Your task to perform on an android device: Open the map Image 0: 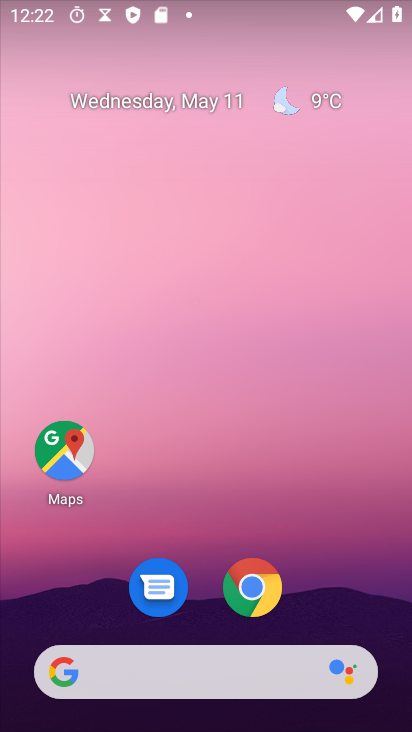
Step 0: drag from (374, 665) to (77, 102)
Your task to perform on an android device: Open the map Image 1: 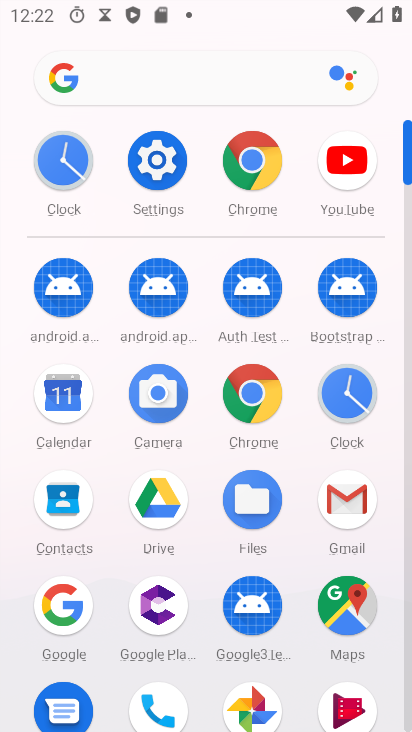
Step 1: click (353, 603)
Your task to perform on an android device: Open the map Image 2: 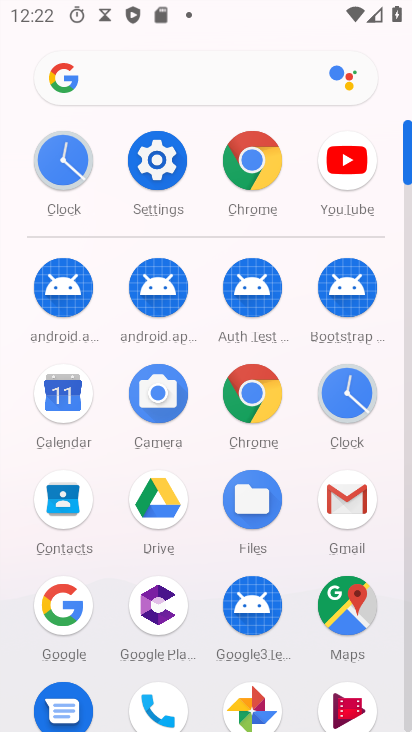
Step 2: click (354, 601)
Your task to perform on an android device: Open the map Image 3: 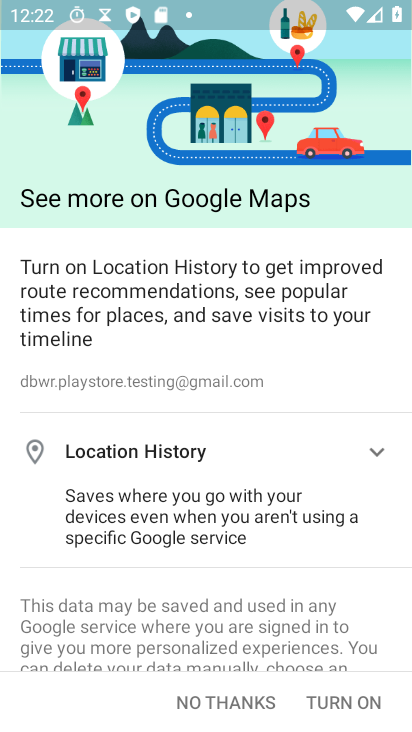
Step 3: click (209, 705)
Your task to perform on an android device: Open the map Image 4: 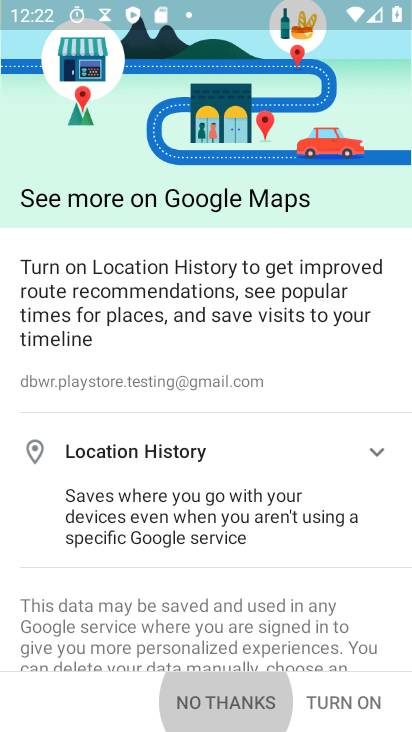
Step 4: click (211, 693)
Your task to perform on an android device: Open the map Image 5: 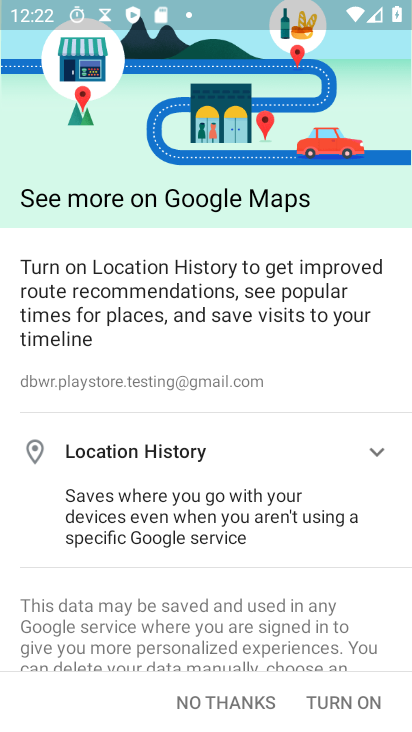
Step 5: click (211, 693)
Your task to perform on an android device: Open the map Image 6: 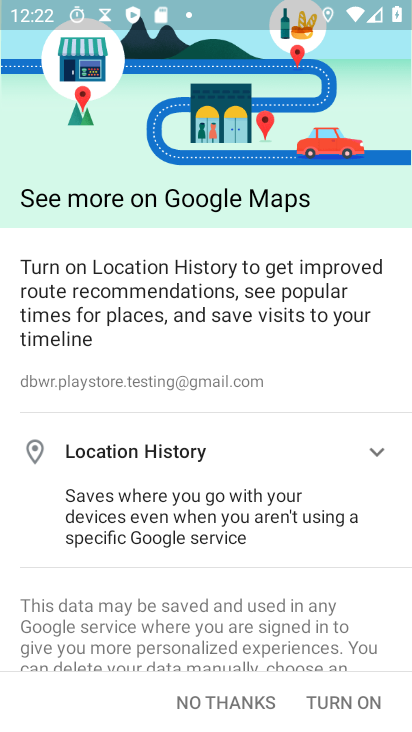
Step 6: click (216, 710)
Your task to perform on an android device: Open the map Image 7: 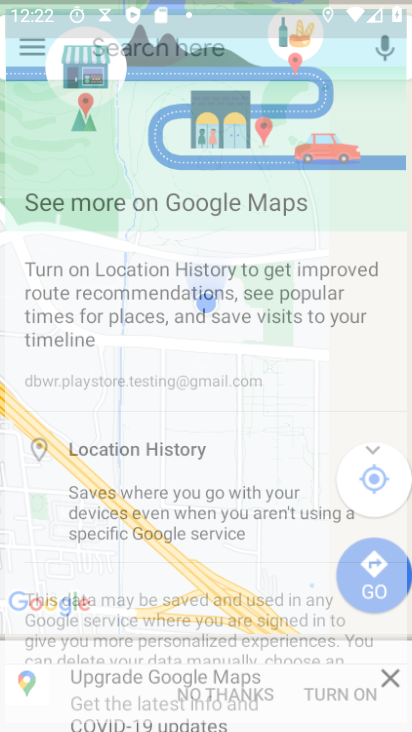
Step 7: task complete